Your task to perform on an android device: change the clock display to analog Image 0: 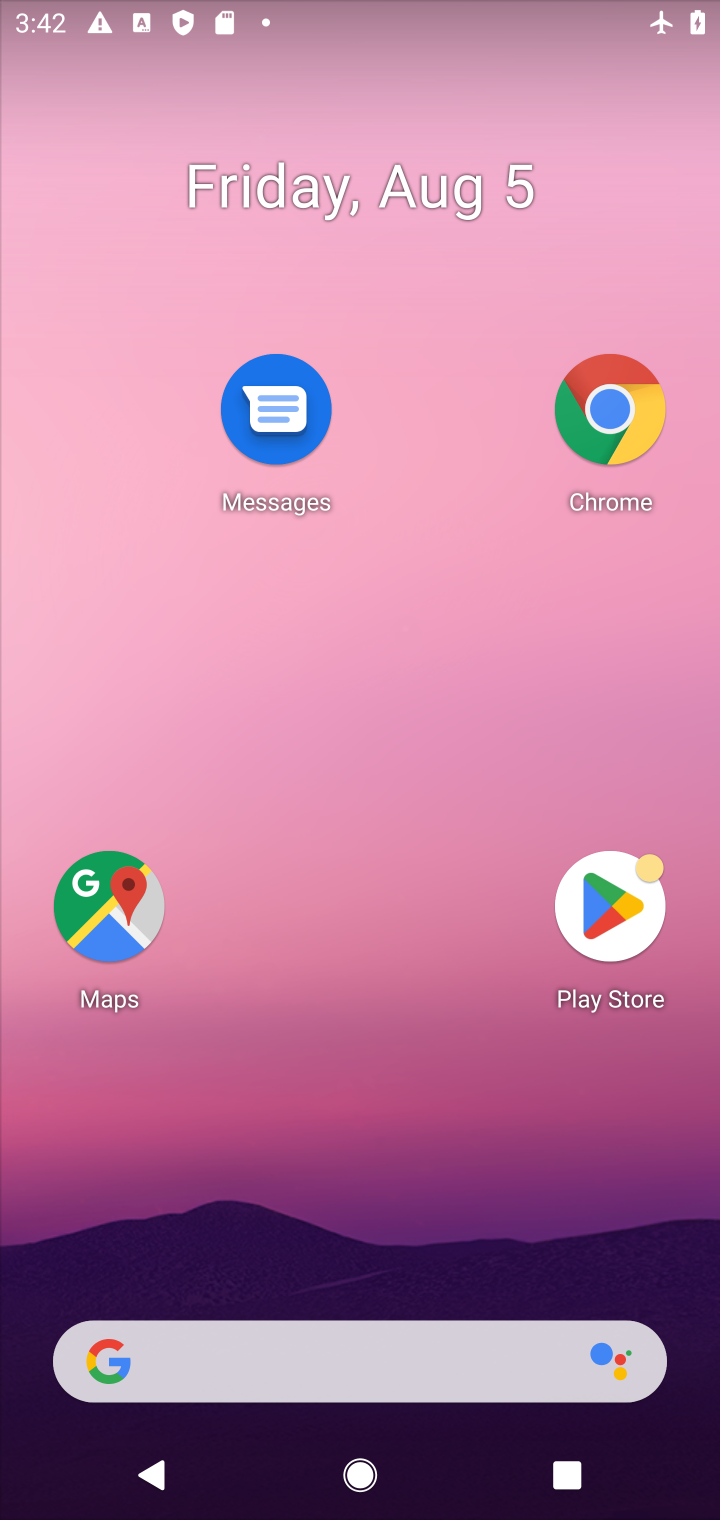
Step 0: drag from (311, 971) to (311, 608)
Your task to perform on an android device: change the clock display to analog Image 1: 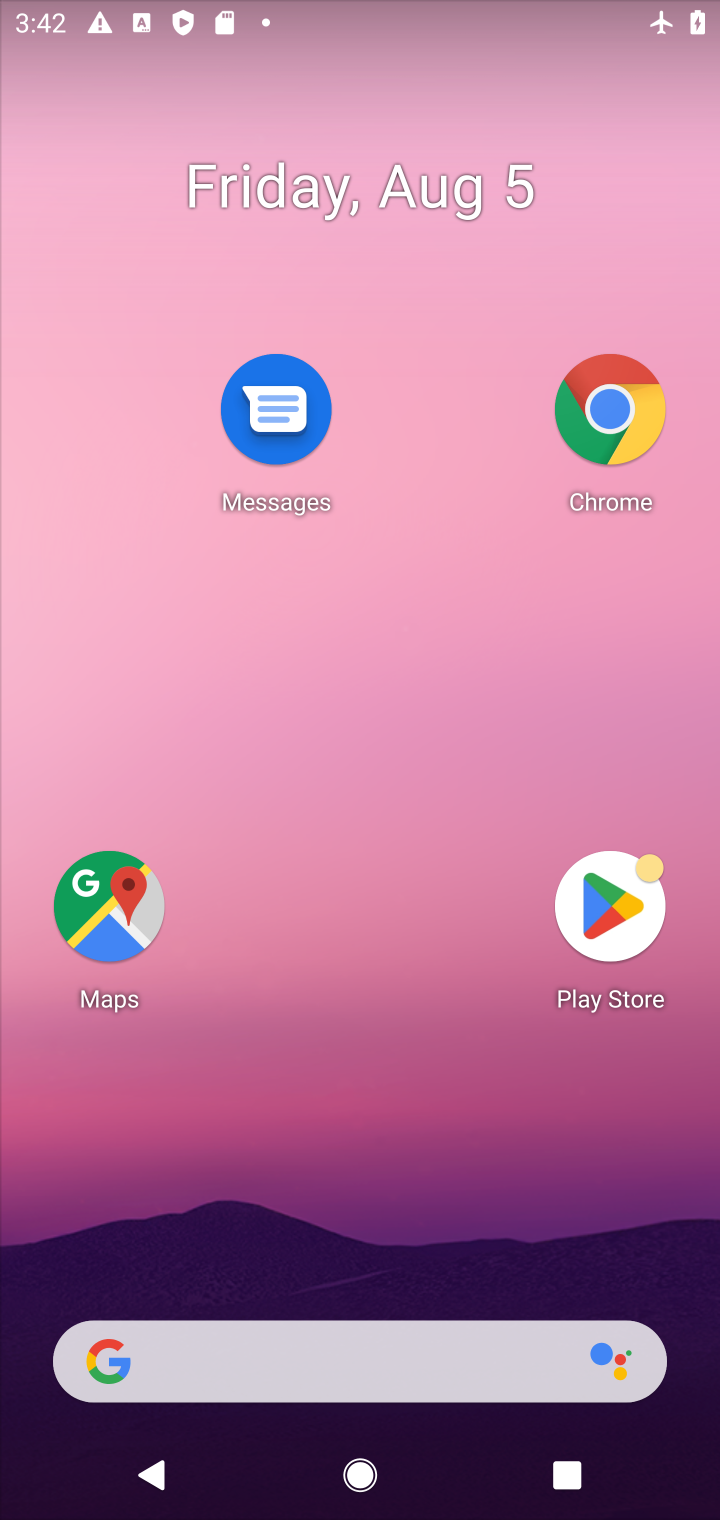
Step 1: drag from (385, 1219) to (385, 619)
Your task to perform on an android device: change the clock display to analog Image 2: 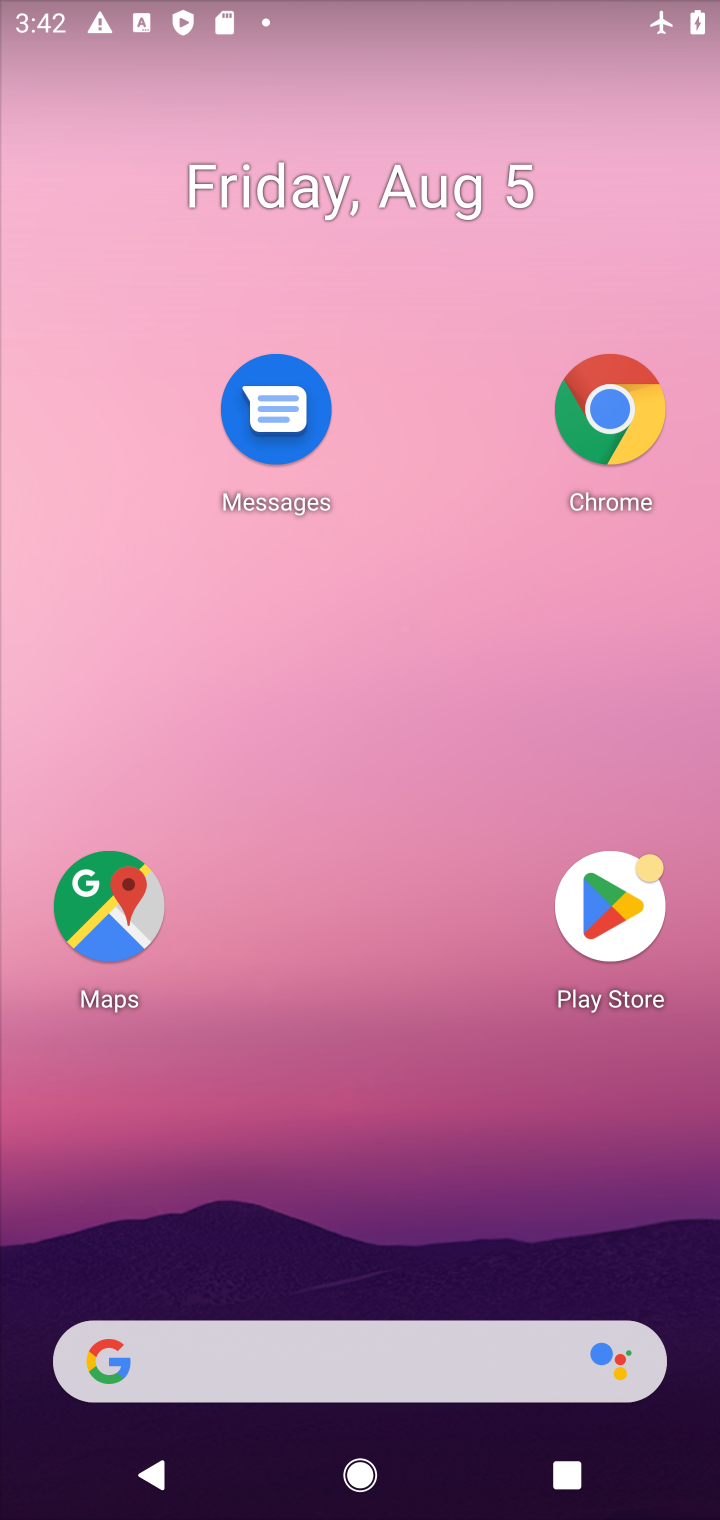
Step 2: drag from (441, 1169) to (413, 467)
Your task to perform on an android device: change the clock display to analog Image 3: 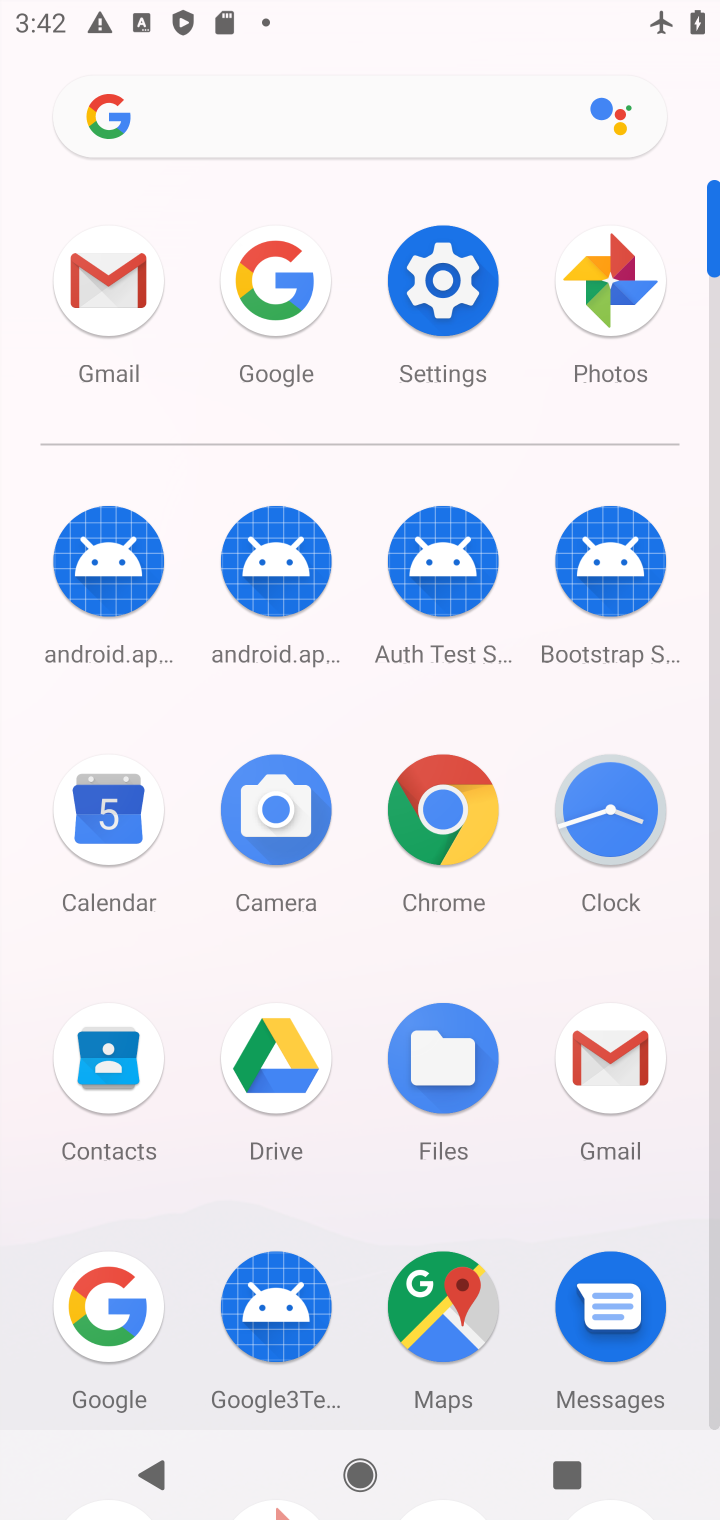
Step 3: click (591, 791)
Your task to perform on an android device: change the clock display to analog Image 4: 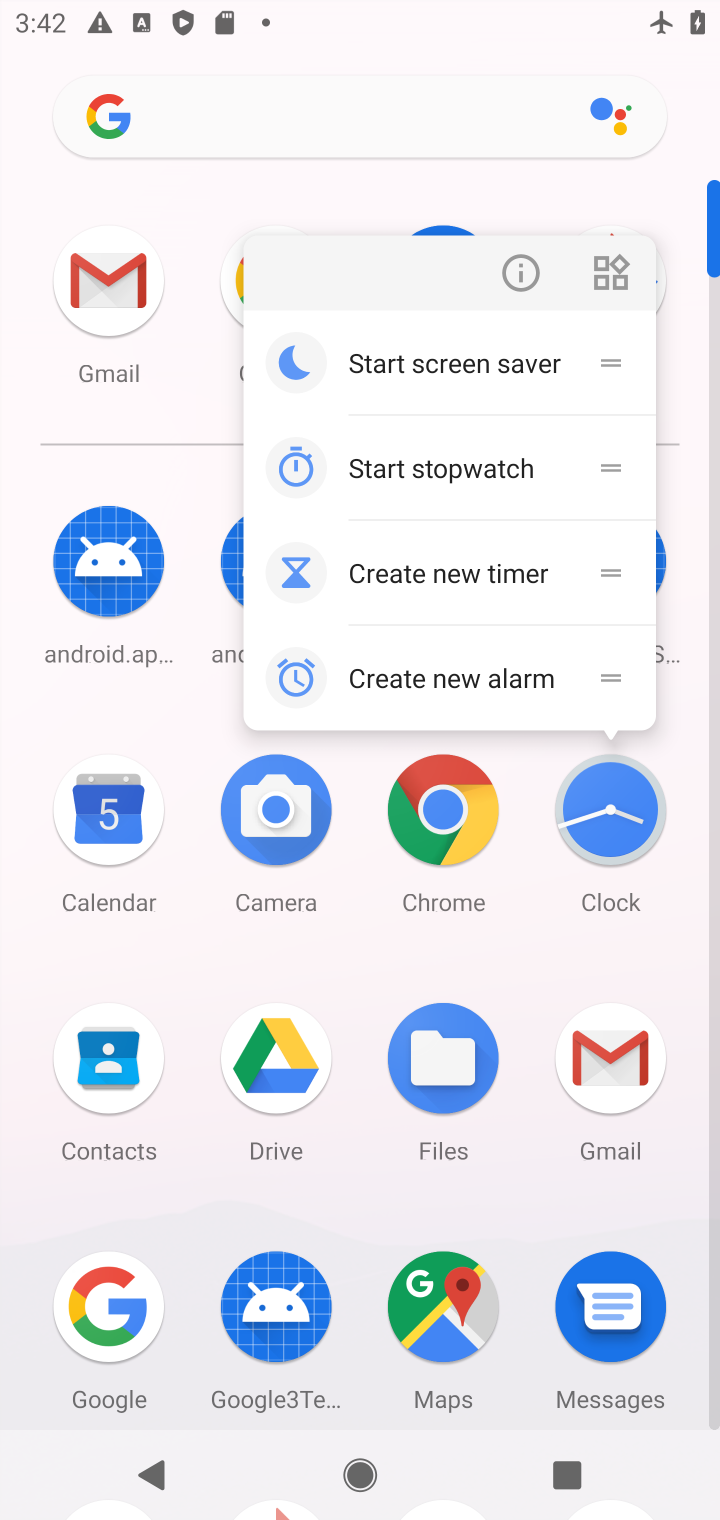
Step 4: click (616, 815)
Your task to perform on an android device: change the clock display to analog Image 5: 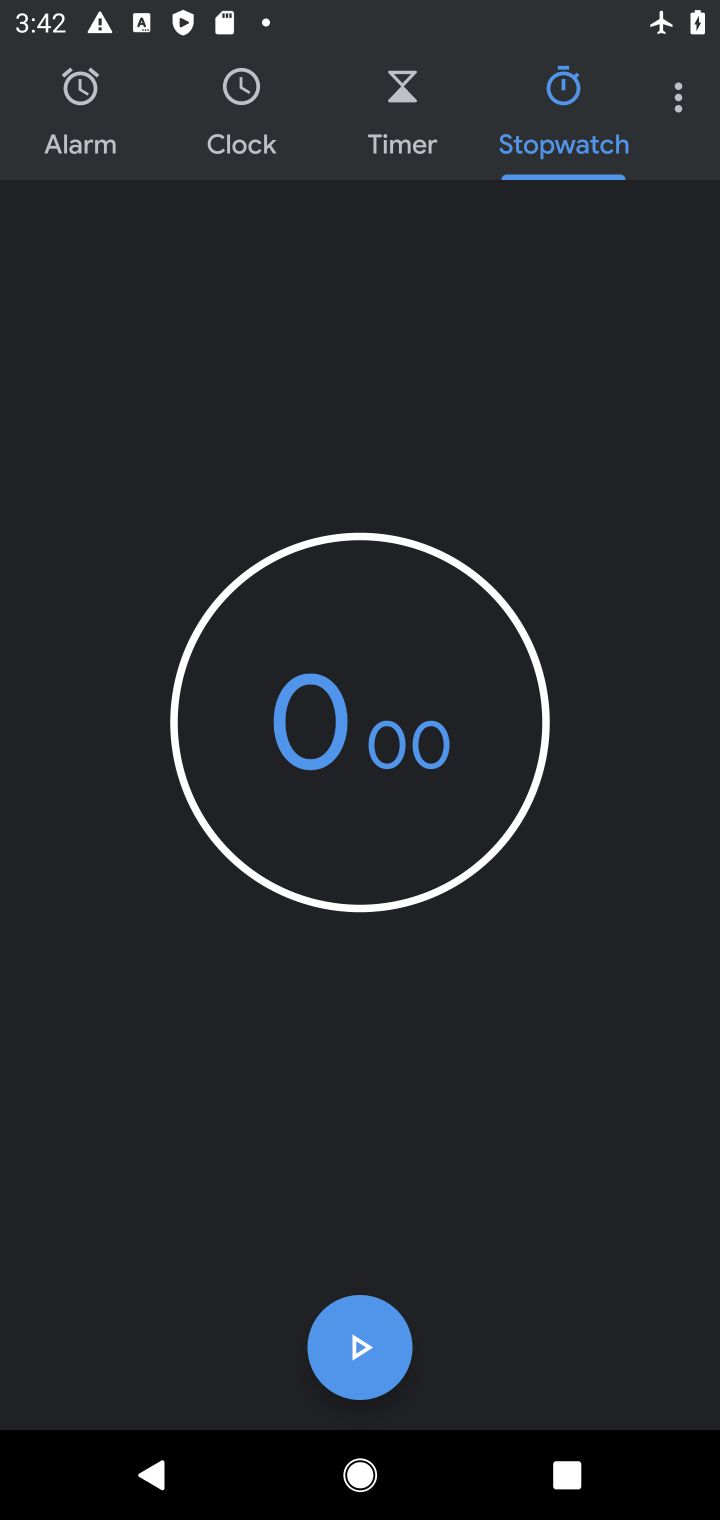
Step 5: click (660, 87)
Your task to perform on an android device: change the clock display to analog Image 6: 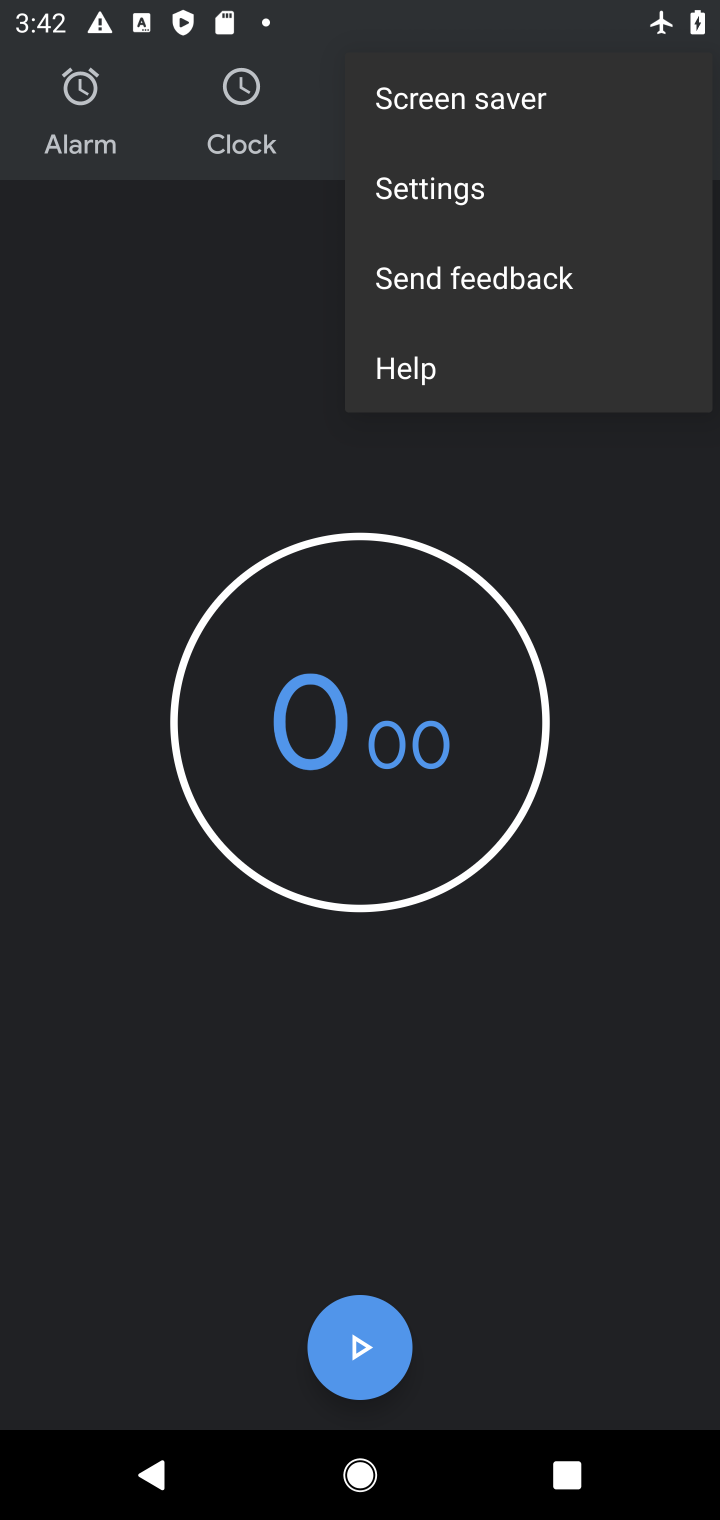
Step 6: click (477, 197)
Your task to perform on an android device: change the clock display to analog Image 7: 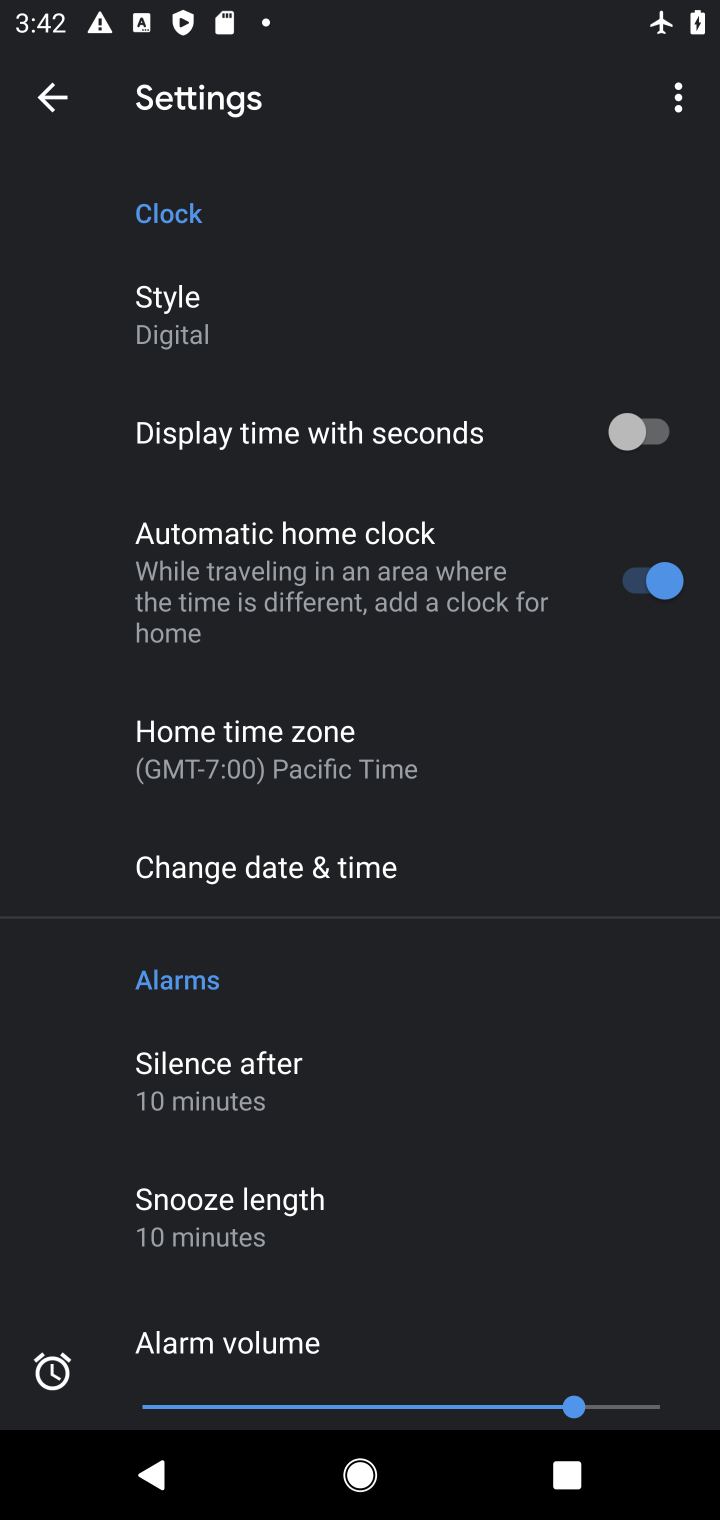
Step 7: click (166, 304)
Your task to perform on an android device: change the clock display to analog Image 8: 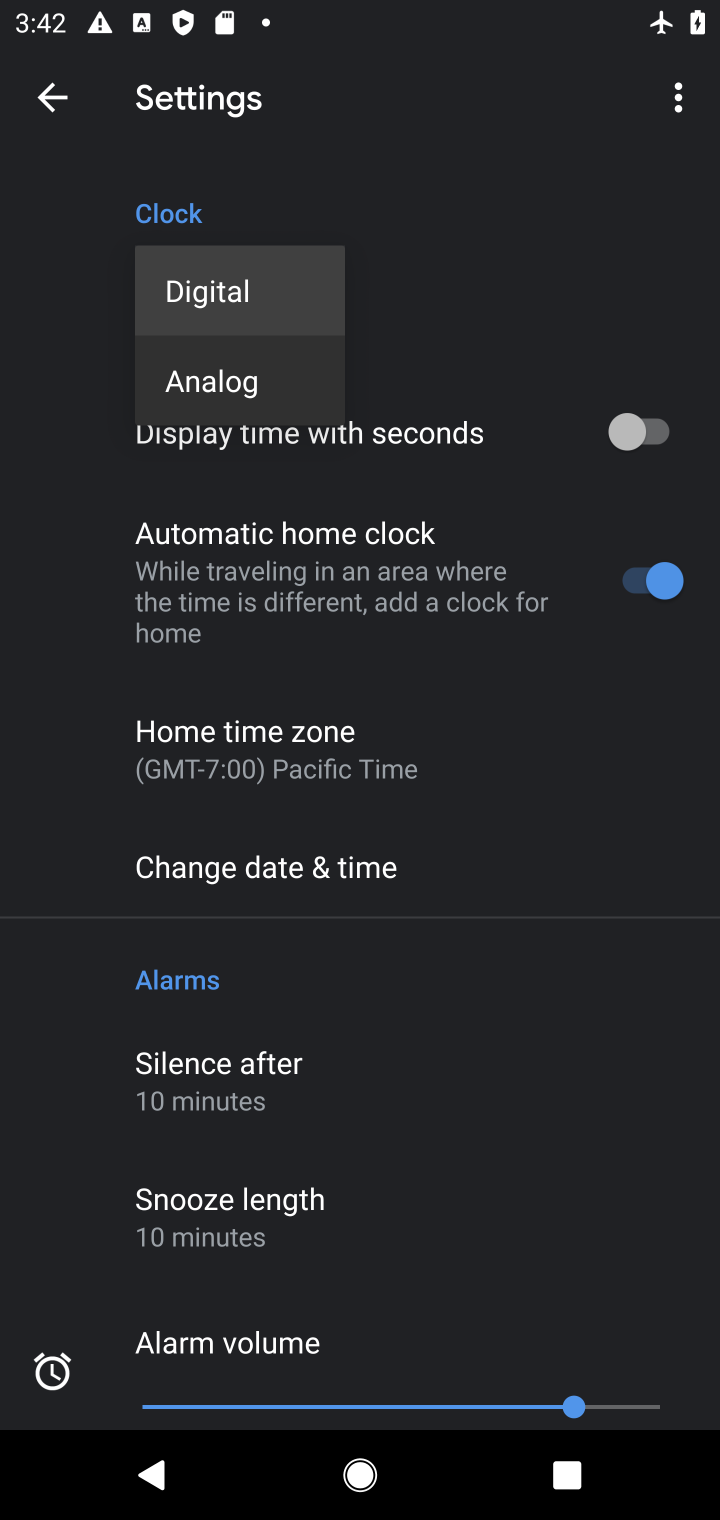
Step 8: click (206, 374)
Your task to perform on an android device: change the clock display to analog Image 9: 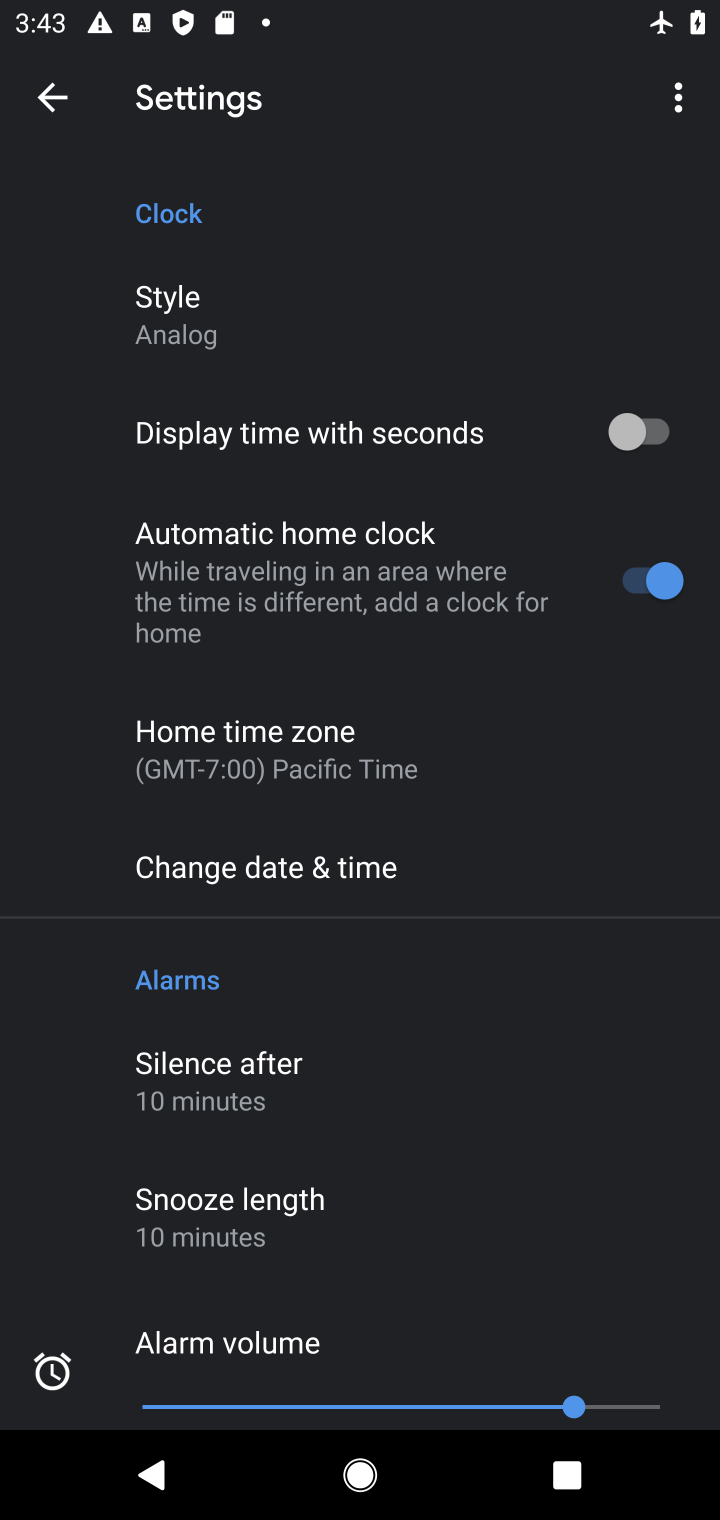
Step 9: task complete